Your task to perform on an android device: add a label to a message in the gmail app Image 0: 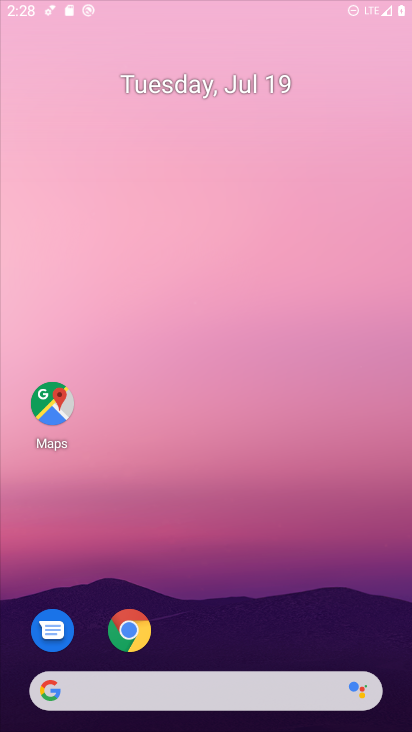
Step 0: click (227, 84)
Your task to perform on an android device: add a label to a message in the gmail app Image 1: 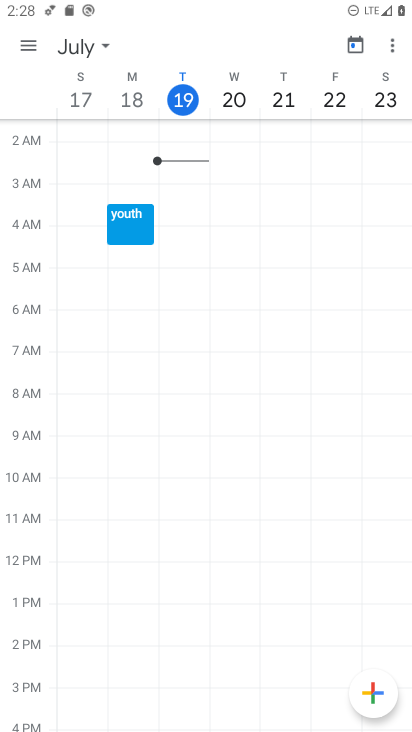
Step 1: press home button
Your task to perform on an android device: add a label to a message in the gmail app Image 2: 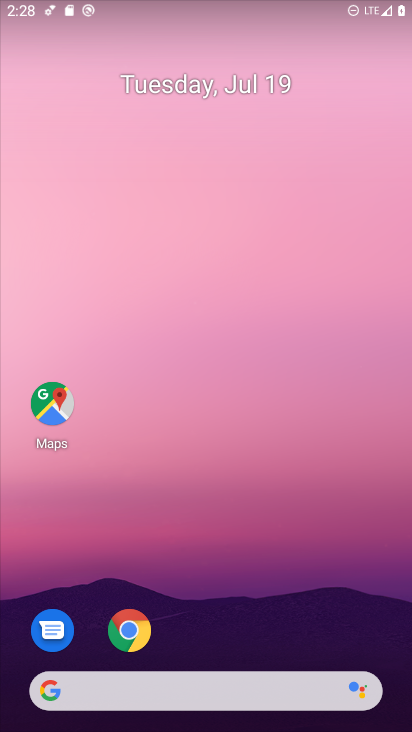
Step 2: drag from (322, 625) to (301, 166)
Your task to perform on an android device: add a label to a message in the gmail app Image 3: 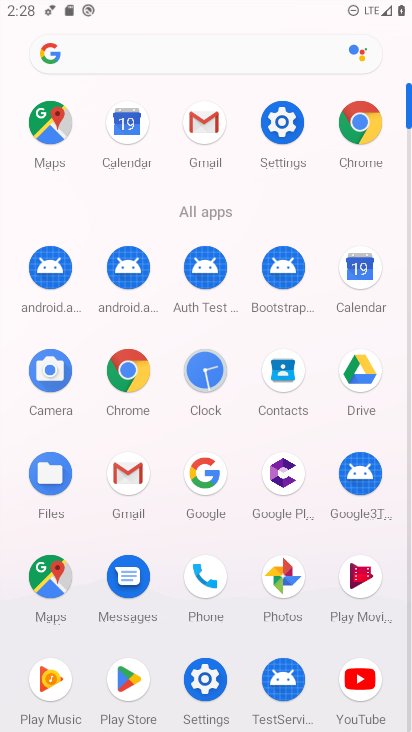
Step 3: click (125, 471)
Your task to perform on an android device: add a label to a message in the gmail app Image 4: 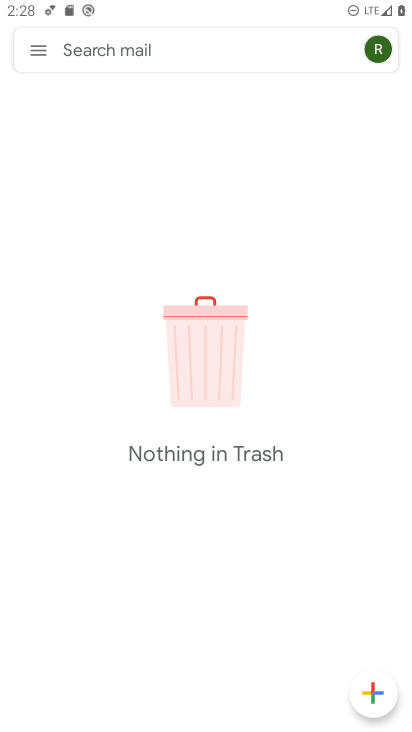
Step 4: click (42, 49)
Your task to perform on an android device: add a label to a message in the gmail app Image 5: 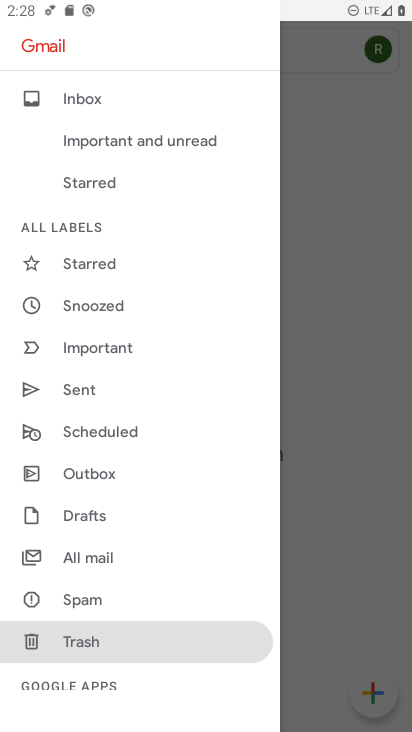
Step 5: click (89, 557)
Your task to perform on an android device: add a label to a message in the gmail app Image 6: 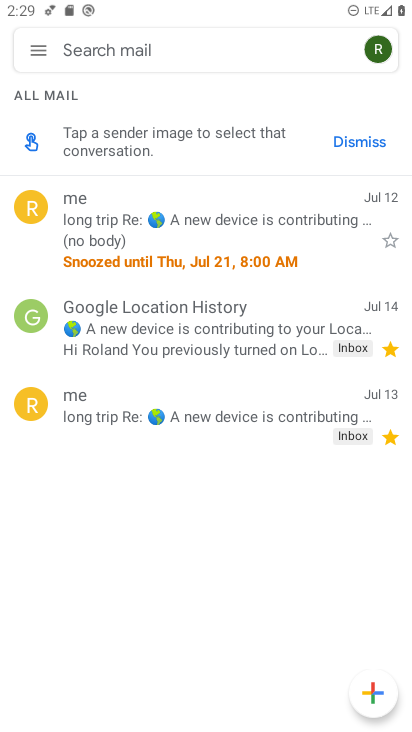
Step 6: click (211, 342)
Your task to perform on an android device: add a label to a message in the gmail app Image 7: 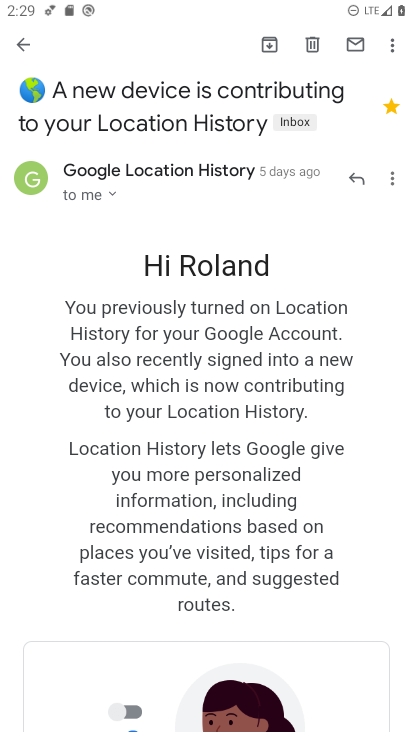
Step 7: click (392, 48)
Your task to perform on an android device: add a label to a message in the gmail app Image 8: 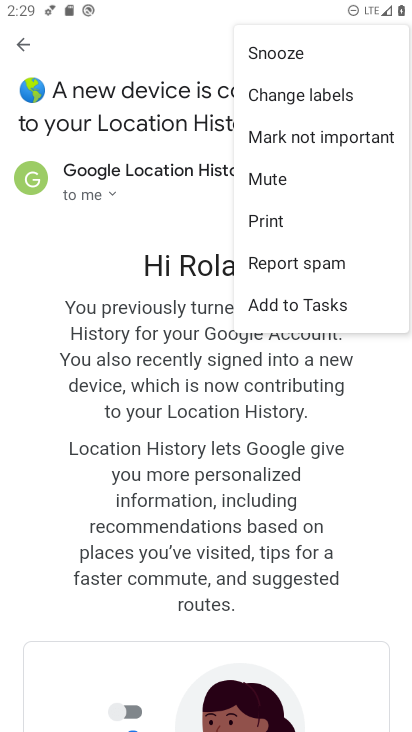
Step 8: click (291, 92)
Your task to perform on an android device: add a label to a message in the gmail app Image 9: 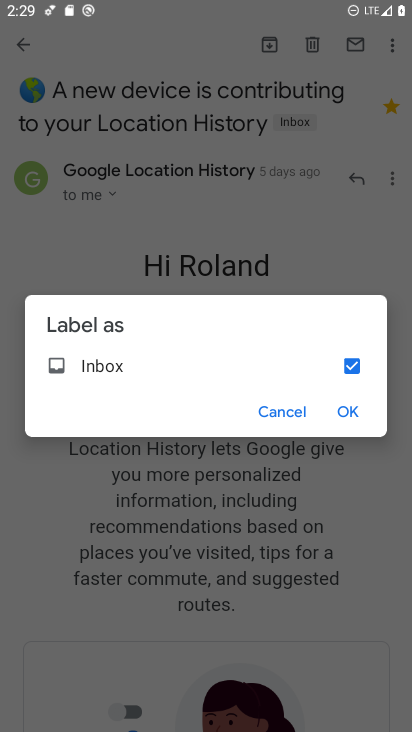
Step 9: click (347, 411)
Your task to perform on an android device: add a label to a message in the gmail app Image 10: 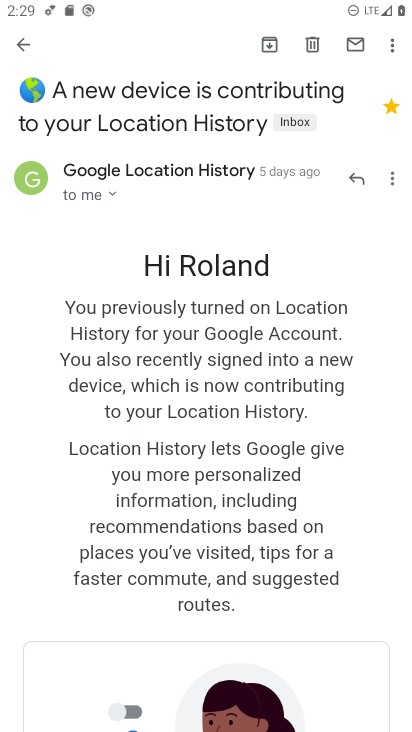
Step 10: task complete